Your task to perform on an android device: toggle javascript in the chrome app Image 0: 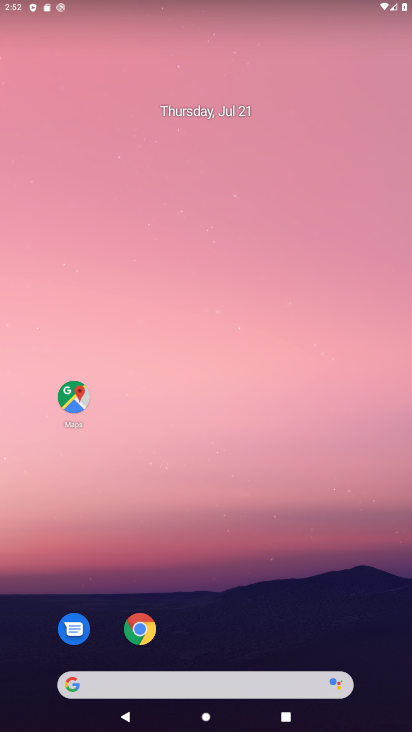
Step 0: drag from (232, 648) to (275, 14)
Your task to perform on an android device: toggle javascript in the chrome app Image 1: 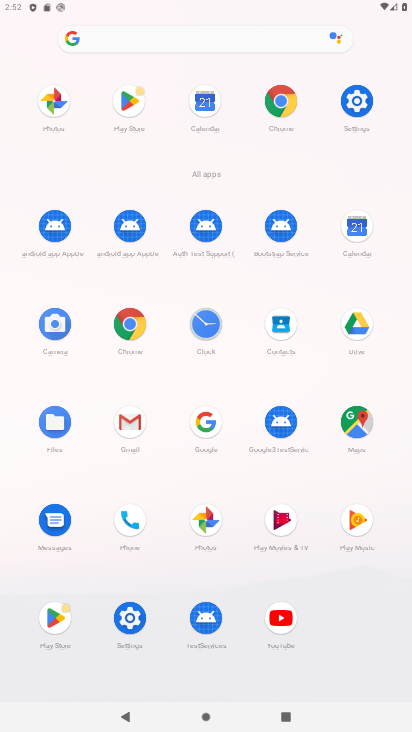
Step 1: click (121, 341)
Your task to perform on an android device: toggle javascript in the chrome app Image 2: 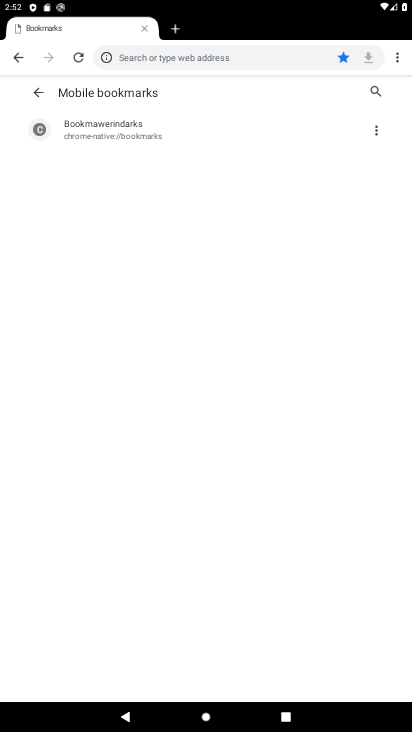
Step 2: click (395, 56)
Your task to perform on an android device: toggle javascript in the chrome app Image 3: 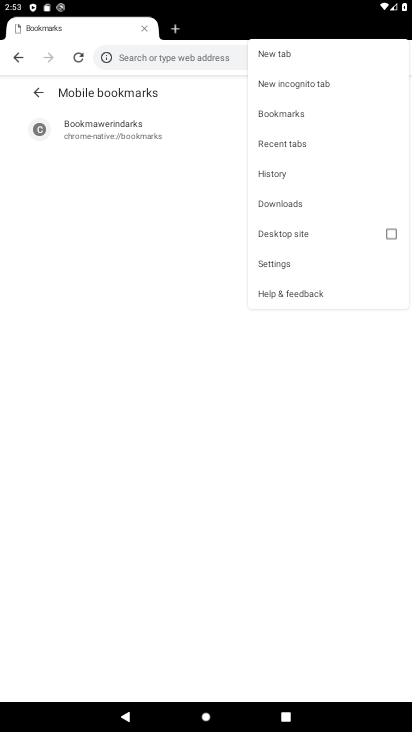
Step 3: click (284, 266)
Your task to perform on an android device: toggle javascript in the chrome app Image 4: 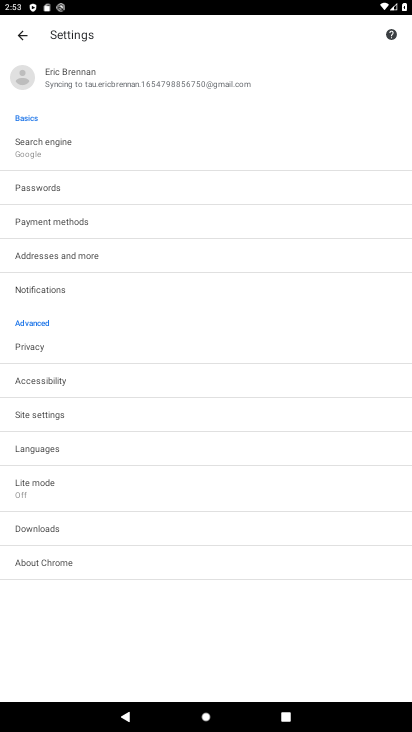
Step 4: click (44, 421)
Your task to perform on an android device: toggle javascript in the chrome app Image 5: 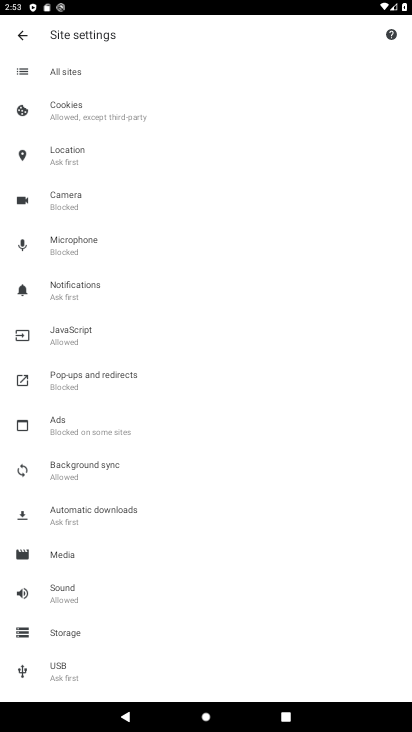
Step 5: click (79, 336)
Your task to perform on an android device: toggle javascript in the chrome app Image 6: 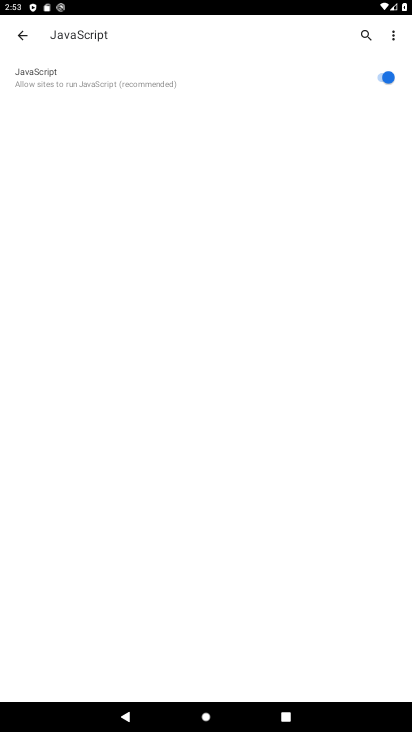
Step 6: click (360, 77)
Your task to perform on an android device: toggle javascript in the chrome app Image 7: 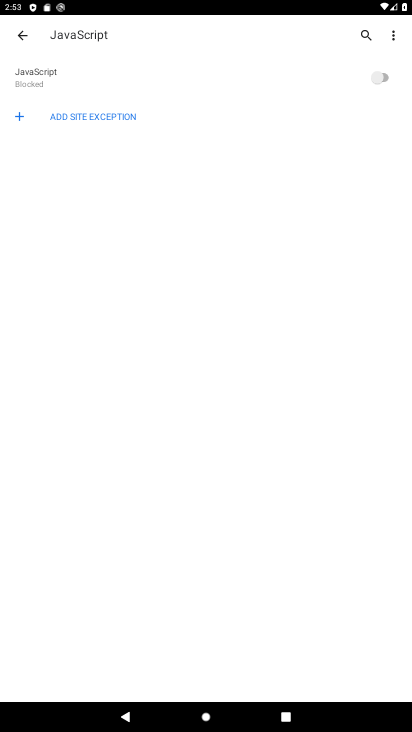
Step 7: task complete